Your task to perform on an android device: Open a new Chrome incognito window Image 0: 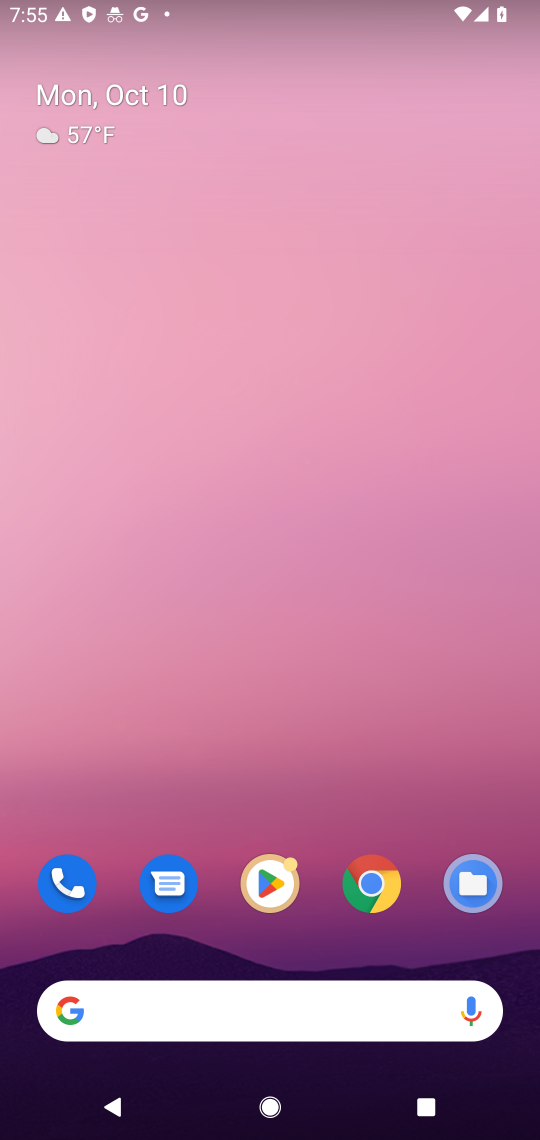
Step 0: drag from (311, 923) to (372, 346)
Your task to perform on an android device: Open a new Chrome incognito window Image 1: 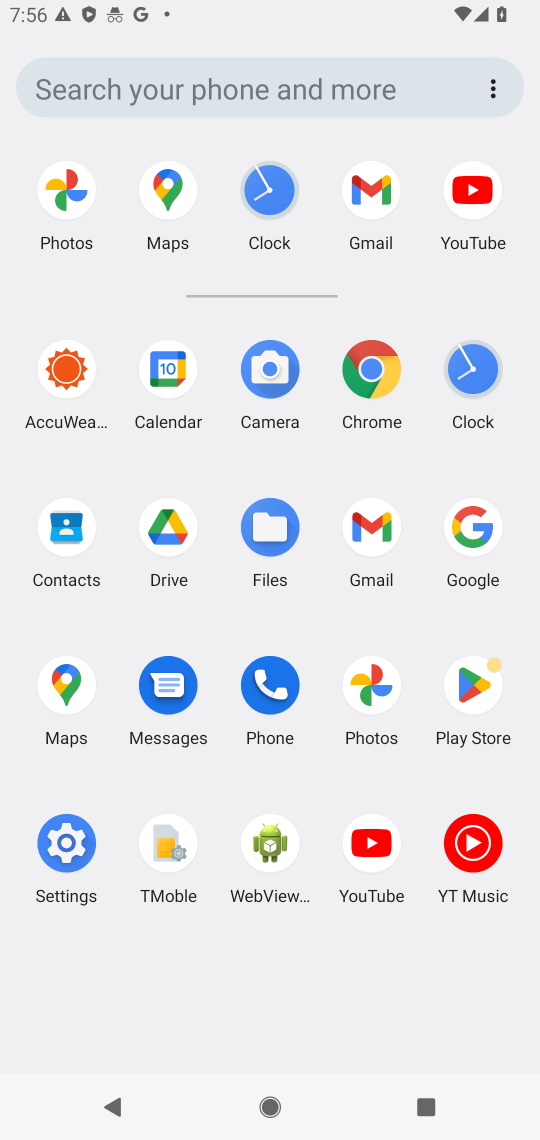
Step 1: click (385, 416)
Your task to perform on an android device: Open a new Chrome incognito window Image 2: 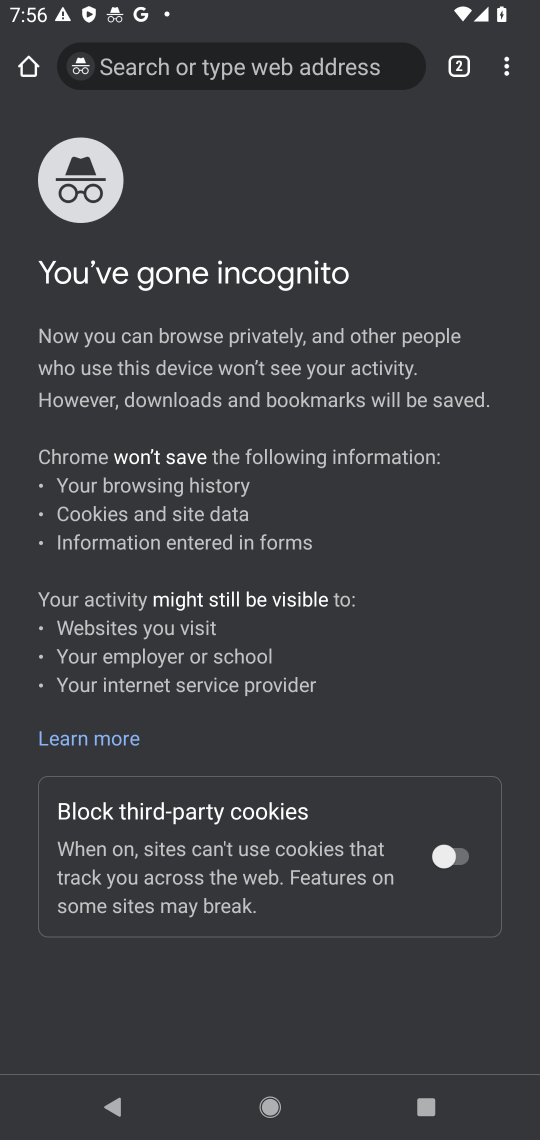
Step 2: click (508, 87)
Your task to perform on an android device: Open a new Chrome incognito window Image 3: 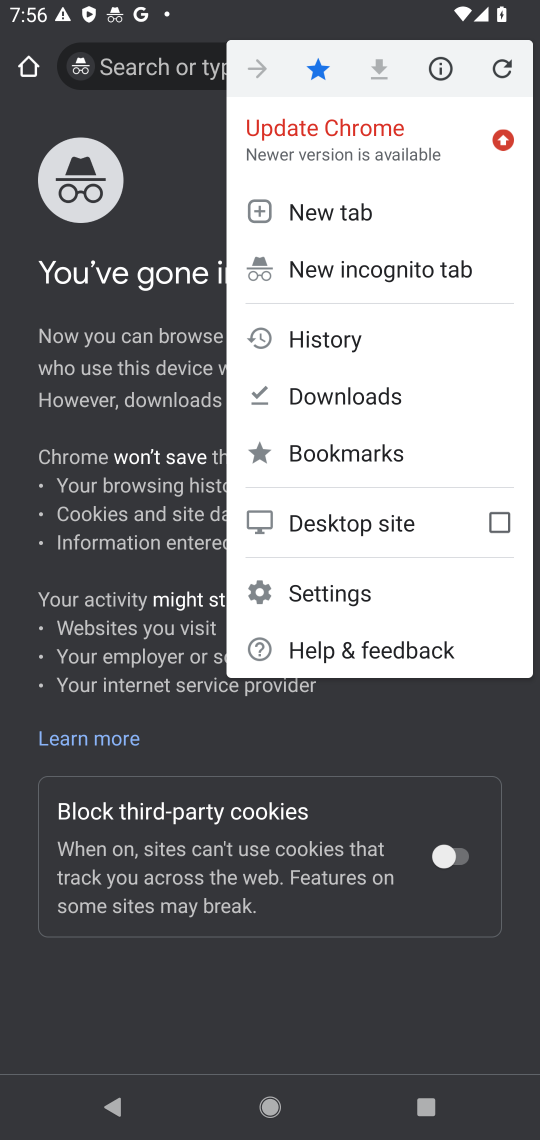
Step 3: click (371, 267)
Your task to perform on an android device: Open a new Chrome incognito window Image 4: 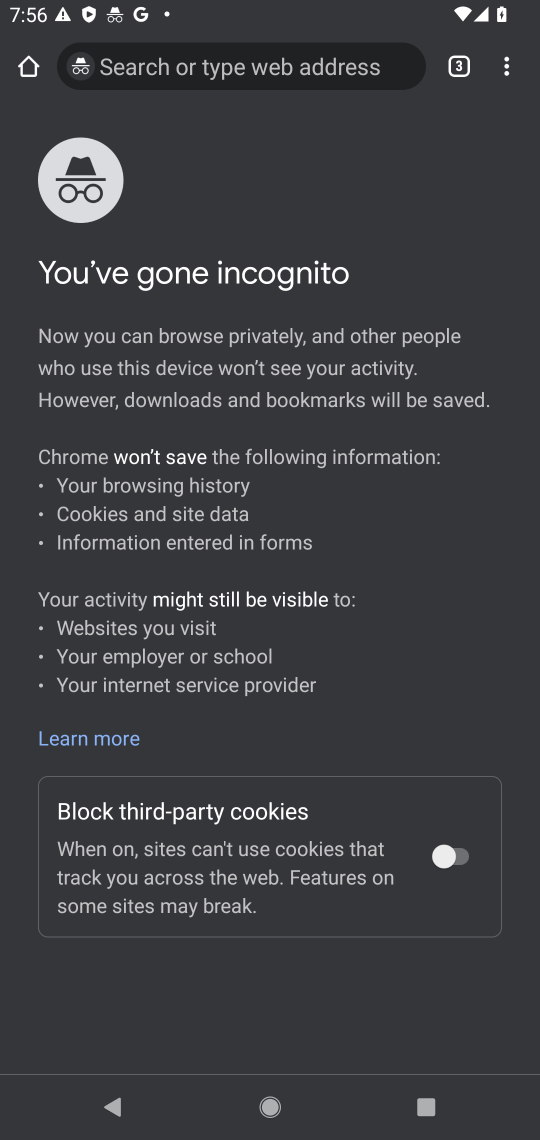
Step 4: task complete